Your task to perform on an android device: turn vacation reply on in the gmail app Image 0: 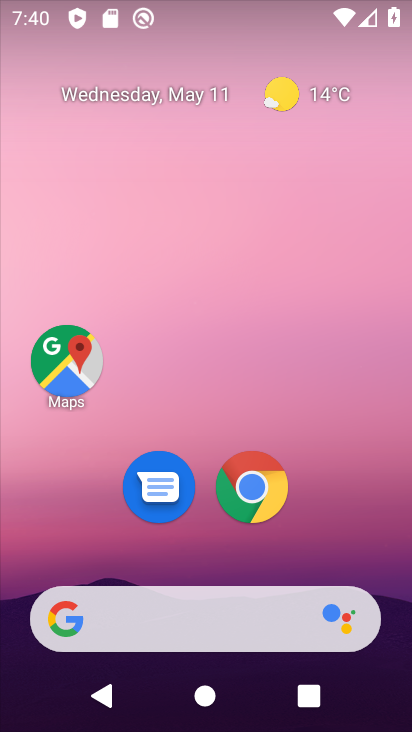
Step 0: drag from (238, 590) to (236, 173)
Your task to perform on an android device: turn vacation reply on in the gmail app Image 1: 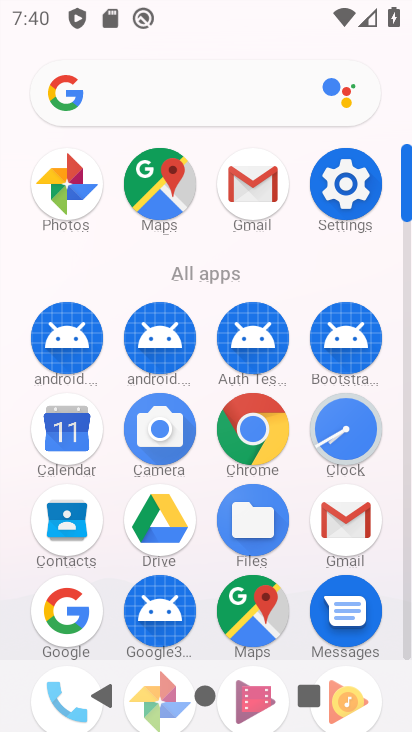
Step 1: click (249, 205)
Your task to perform on an android device: turn vacation reply on in the gmail app Image 2: 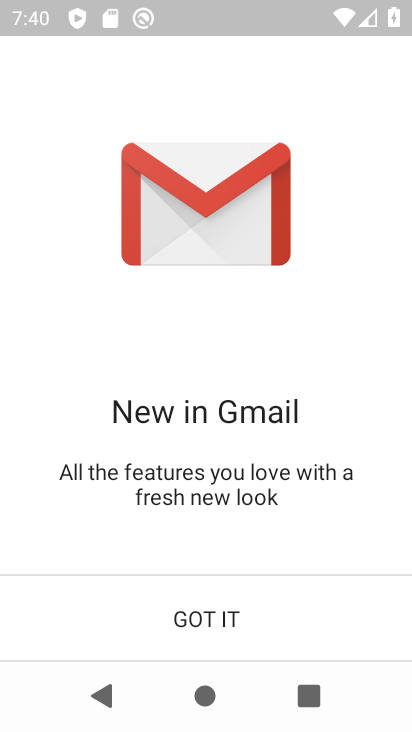
Step 2: click (227, 628)
Your task to perform on an android device: turn vacation reply on in the gmail app Image 3: 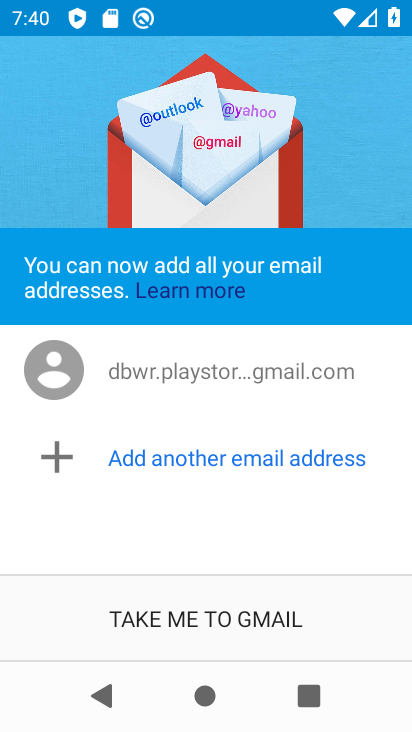
Step 3: click (225, 626)
Your task to perform on an android device: turn vacation reply on in the gmail app Image 4: 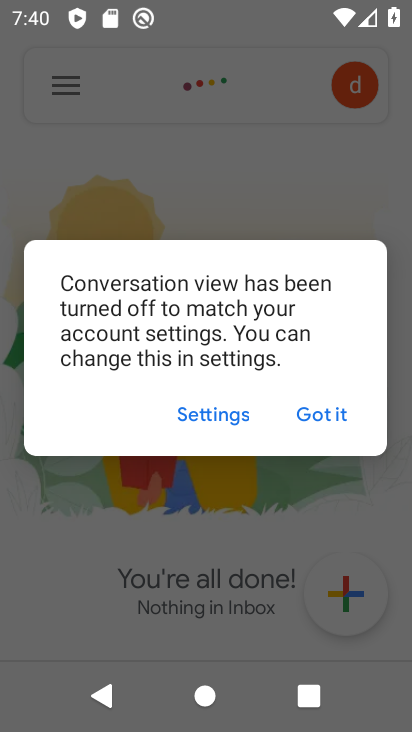
Step 4: click (325, 410)
Your task to perform on an android device: turn vacation reply on in the gmail app Image 5: 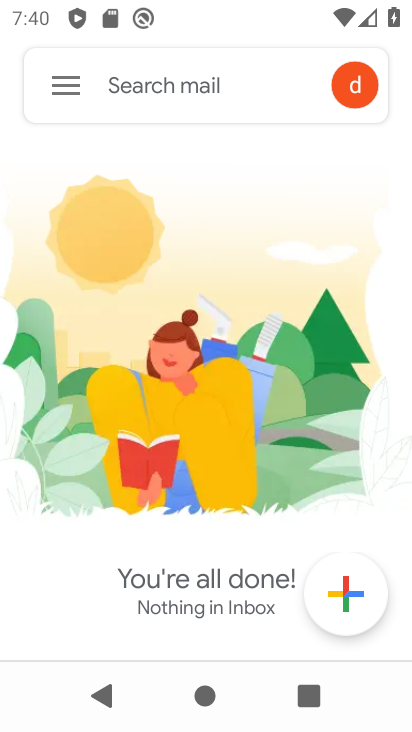
Step 5: click (55, 79)
Your task to perform on an android device: turn vacation reply on in the gmail app Image 6: 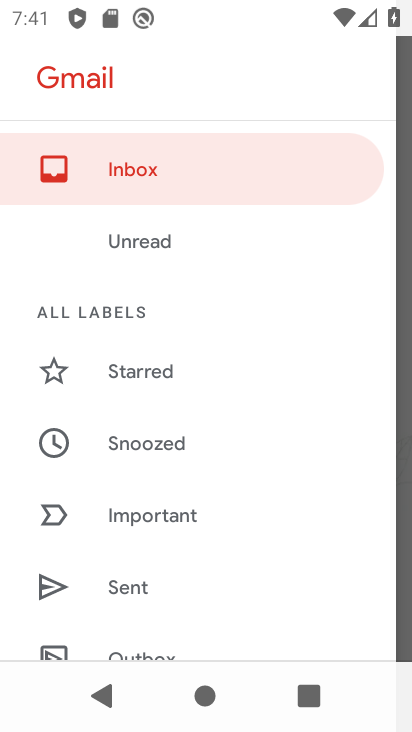
Step 6: drag from (147, 634) to (147, 298)
Your task to perform on an android device: turn vacation reply on in the gmail app Image 7: 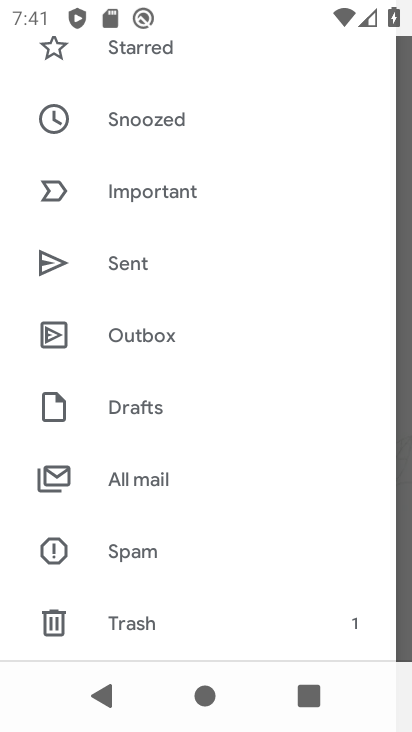
Step 7: drag from (137, 646) to (183, 253)
Your task to perform on an android device: turn vacation reply on in the gmail app Image 8: 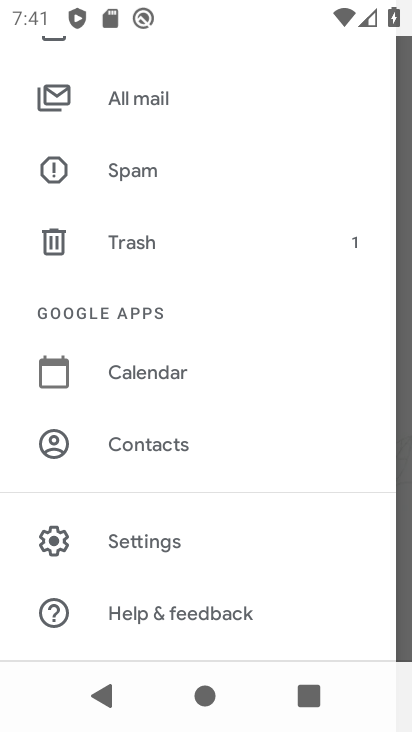
Step 8: click (147, 548)
Your task to perform on an android device: turn vacation reply on in the gmail app Image 9: 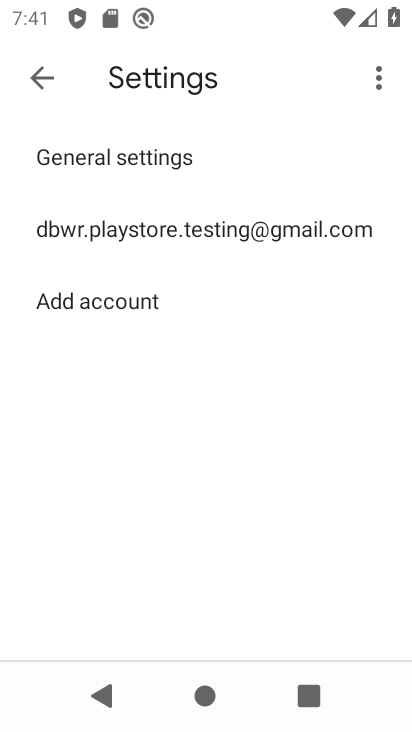
Step 9: click (129, 220)
Your task to perform on an android device: turn vacation reply on in the gmail app Image 10: 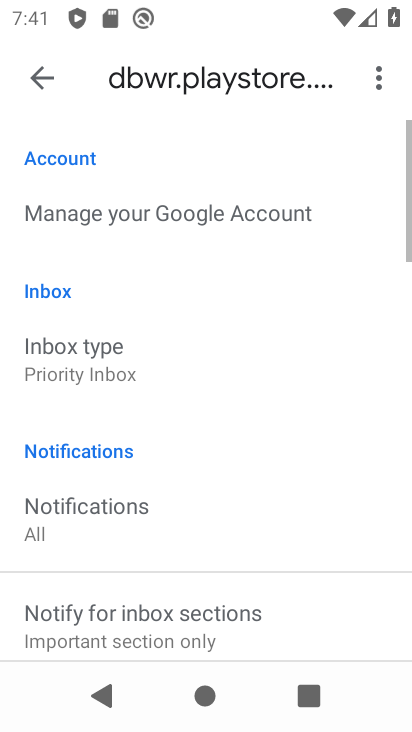
Step 10: drag from (179, 637) to (179, 210)
Your task to perform on an android device: turn vacation reply on in the gmail app Image 11: 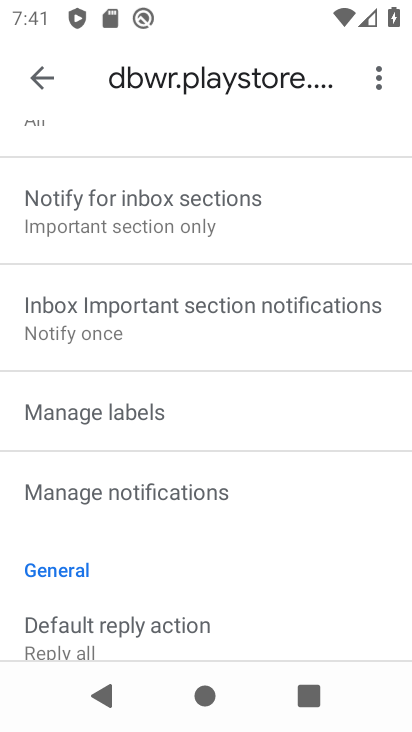
Step 11: drag from (121, 643) to (111, 245)
Your task to perform on an android device: turn vacation reply on in the gmail app Image 12: 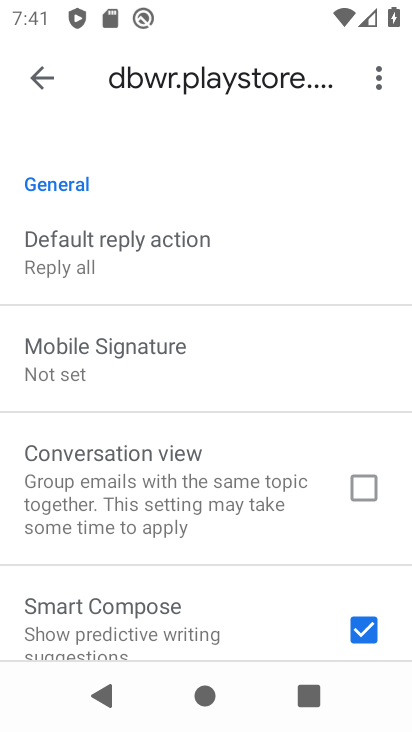
Step 12: drag from (83, 636) to (82, 285)
Your task to perform on an android device: turn vacation reply on in the gmail app Image 13: 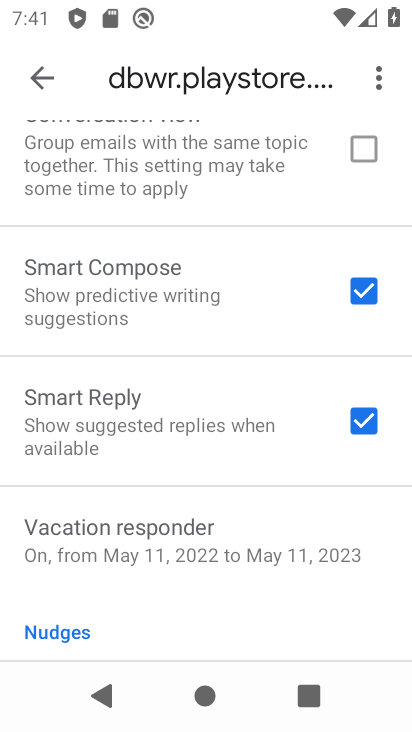
Step 13: click (81, 549)
Your task to perform on an android device: turn vacation reply on in the gmail app Image 14: 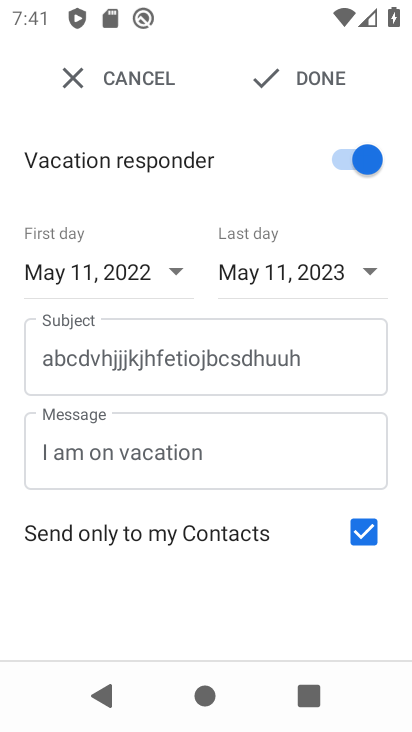
Step 14: click (316, 74)
Your task to perform on an android device: turn vacation reply on in the gmail app Image 15: 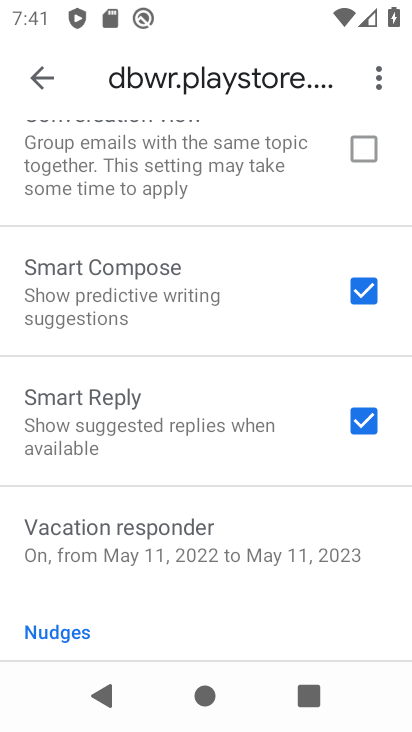
Step 15: task complete